Your task to perform on an android device: toggle sleep mode Image 0: 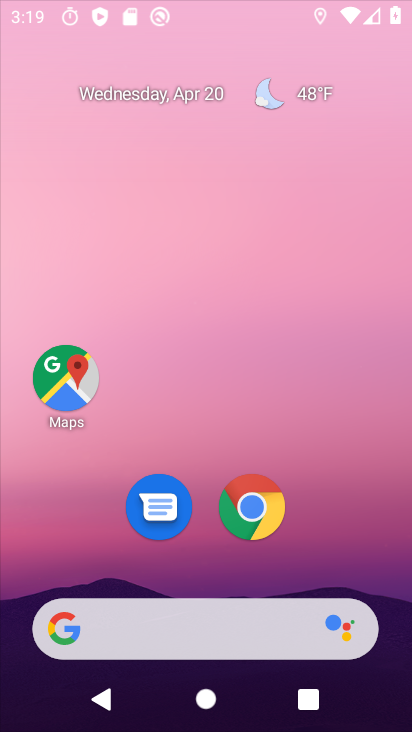
Step 0: click (214, 517)
Your task to perform on an android device: toggle sleep mode Image 1: 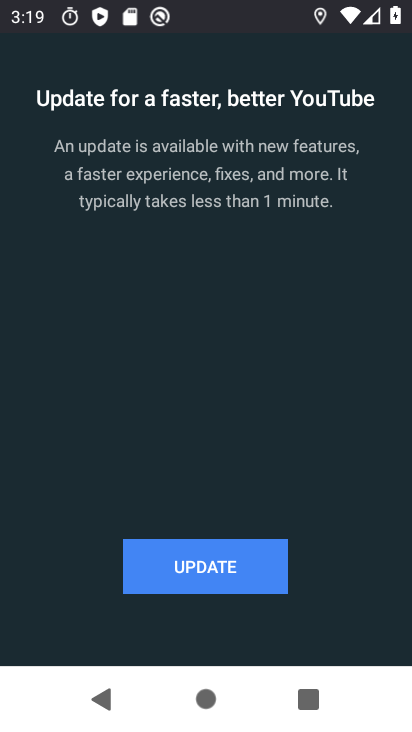
Step 1: press home button
Your task to perform on an android device: toggle sleep mode Image 2: 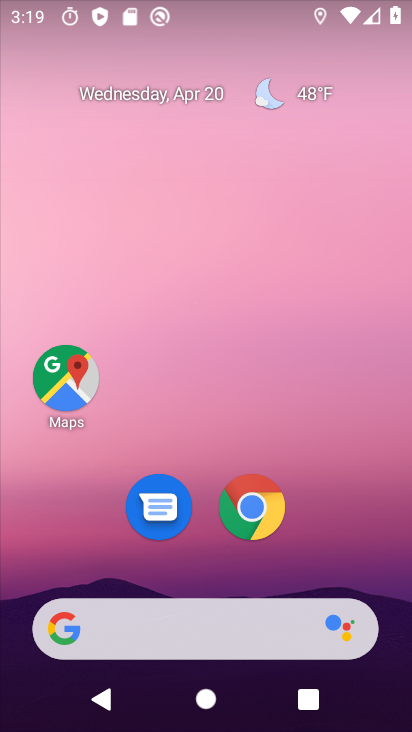
Step 2: drag from (179, 625) to (190, 394)
Your task to perform on an android device: toggle sleep mode Image 3: 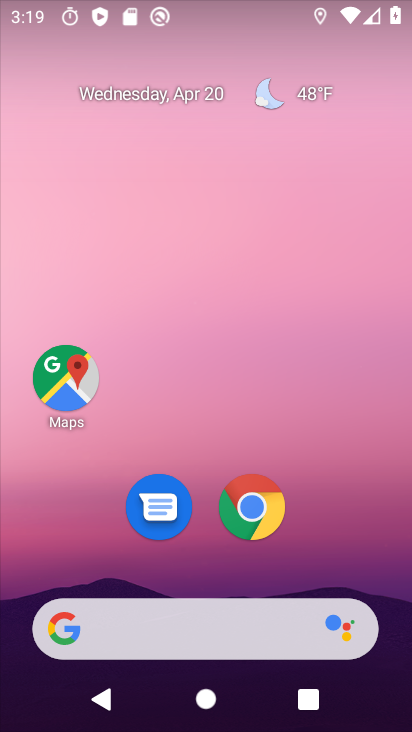
Step 3: drag from (224, 621) to (213, 63)
Your task to perform on an android device: toggle sleep mode Image 4: 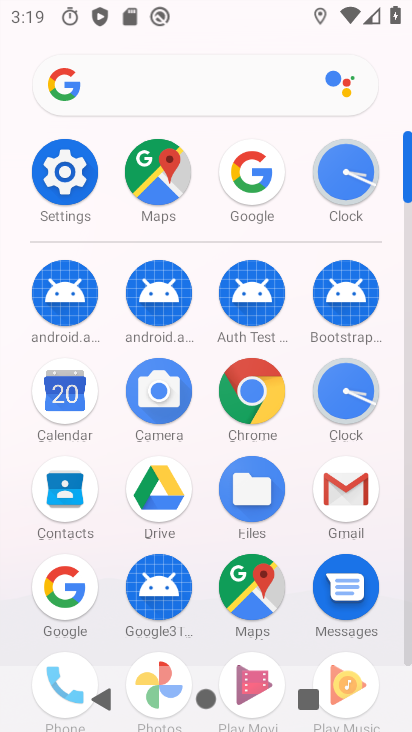
Step 4: click (76, 200)
Your task to perform on an android device: toggle sleep mode Image 5: 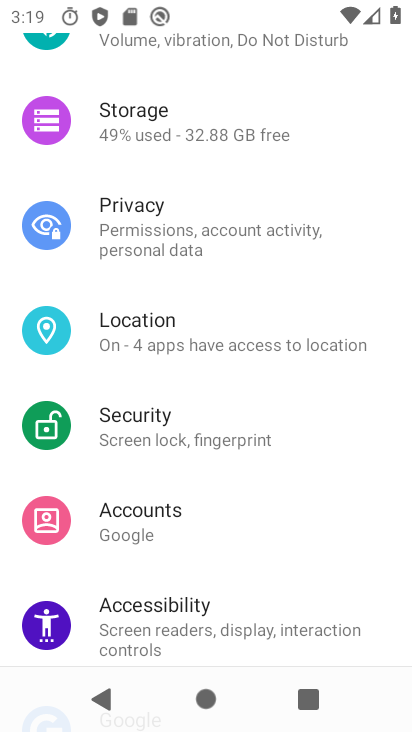
Step 5: drag from (185, 117) to (182, 532)
Your task to perform on an android device: toggle sleep mode Image 6: 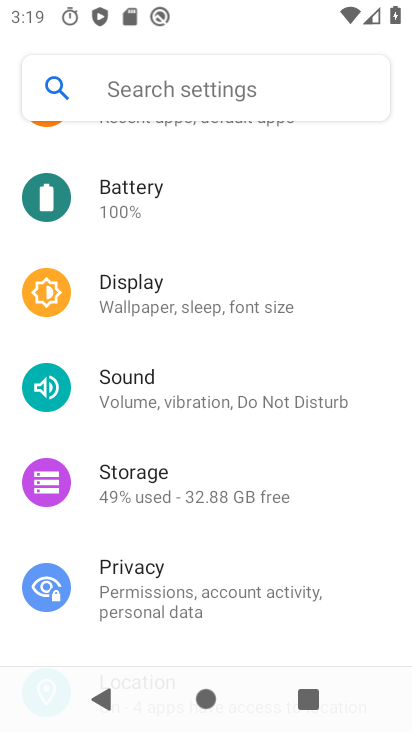
Step 6: click (155, 305)
Your task to perform on an android device: toggle sleep mode Image 7: 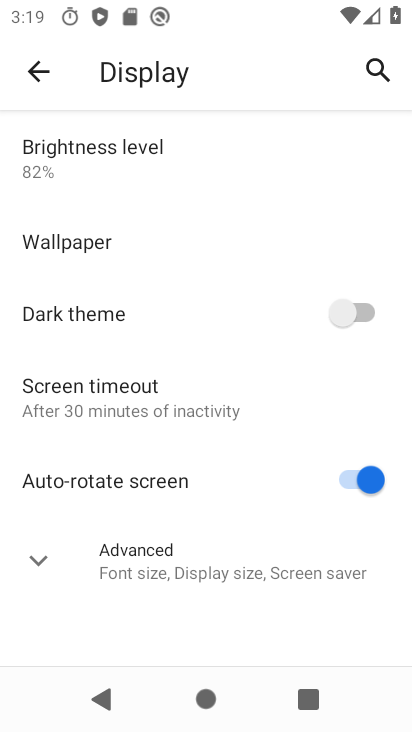
Step 7: click (264, 555)
Your task to perform on an android device: toggle sleep mode Image 8: 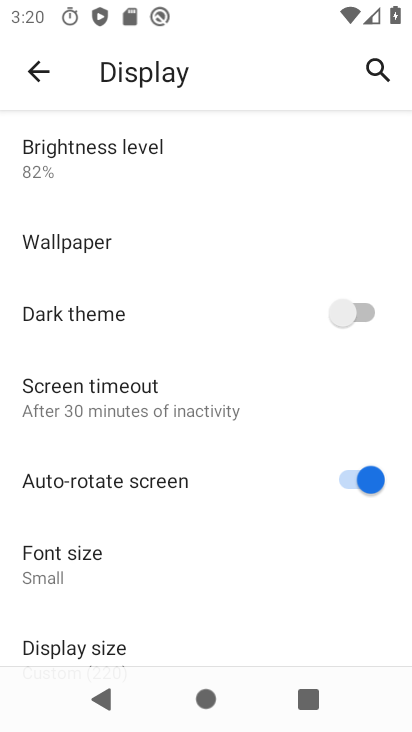
Step 8: task complete